Your task to perform on an android device: Open calendar and show me the first week of next month Image 0: 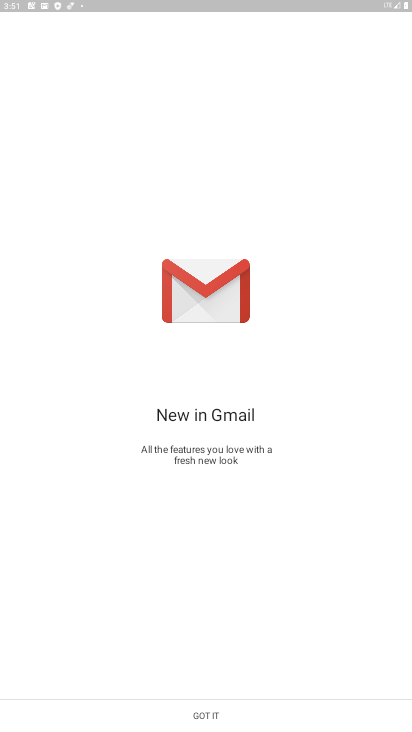
Step 0: press home button
Your task to perform on an android device: Open calendar and show me the first week of next month Image 1: 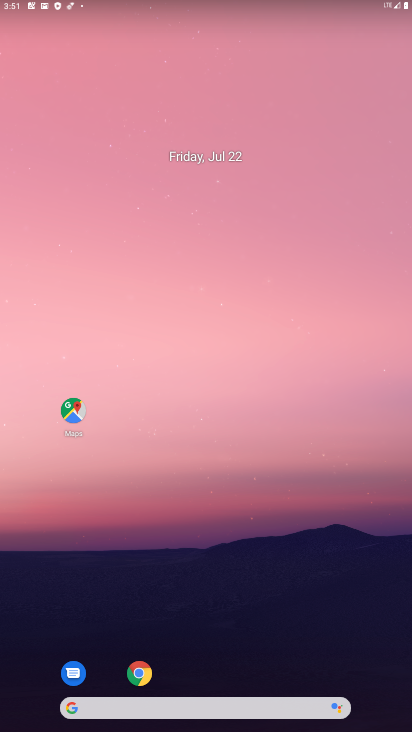
Step 1: drag from (269, 652) to (266, 6)
Your task to perform on an android device: Open calendar and show me the first week of next month Image 2: 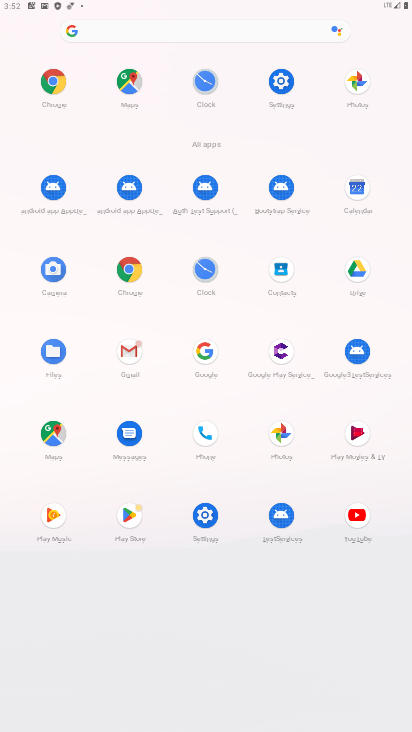
Step 2: click (362, 200)
Your task to perform on an android device: Open calendar and show me the first week of next month Image 3: 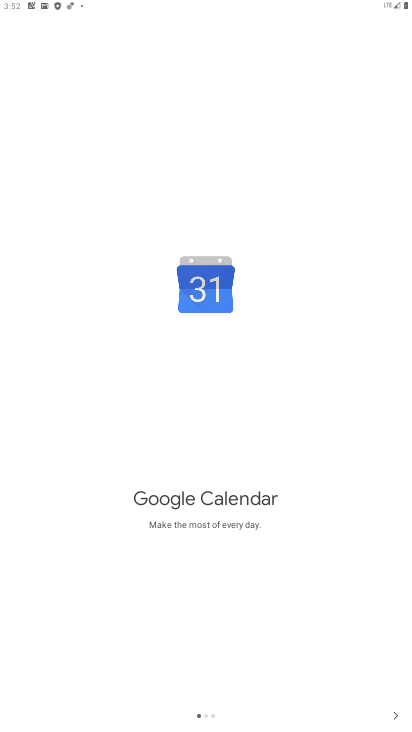
Step 3: click (399, 711)
Your task to perform on an android device: Open calendar and show me the first week of next month Image 4: 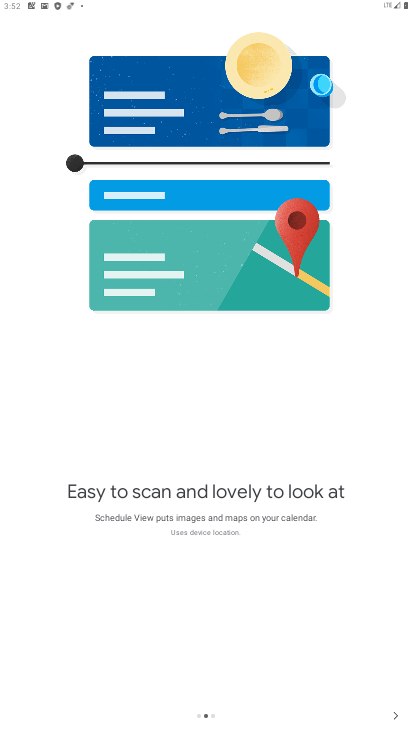
Step 4: click (399, 711)
Your task to perform on an android device: Open calendar and show me the first week of next month Image 5: 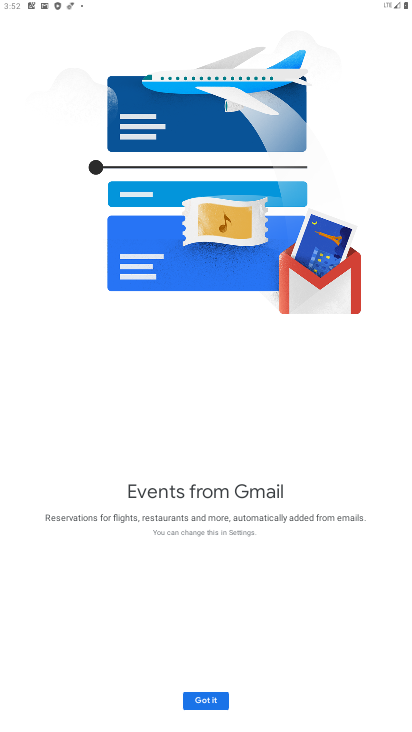
Step 5: click (399, 711)
Your task to perform on an android device: Open calendar and show me the first week of next month Image 6: 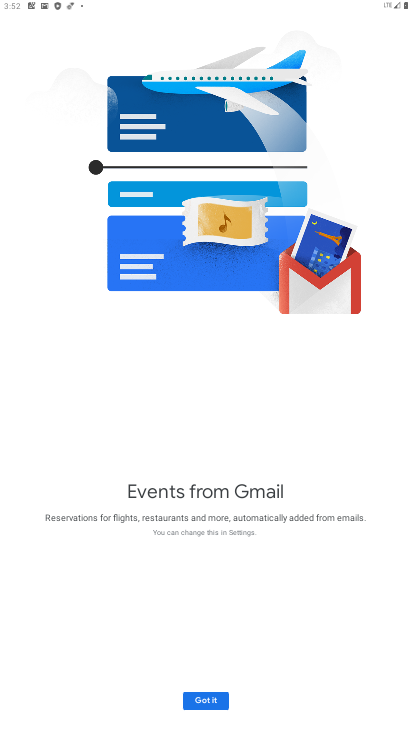
Step 6: click (213, 697)
Your task to perform on an android device: Open calendar and show me the first week of next month Image 7: 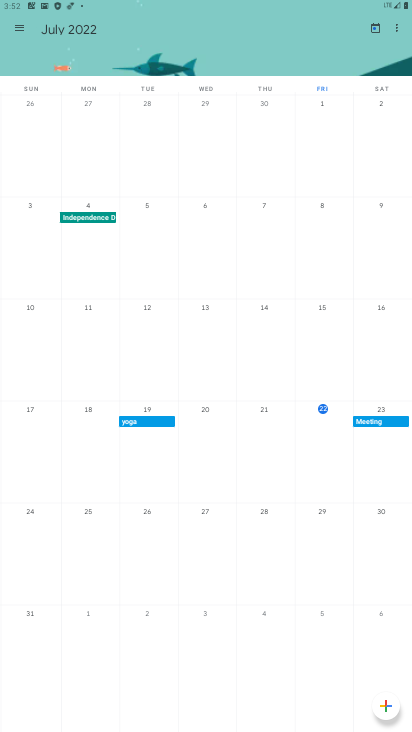
Step 7: click (14, 456)
Your task to perform on an android device: Open calendar and show me the first week of next month Image 8: 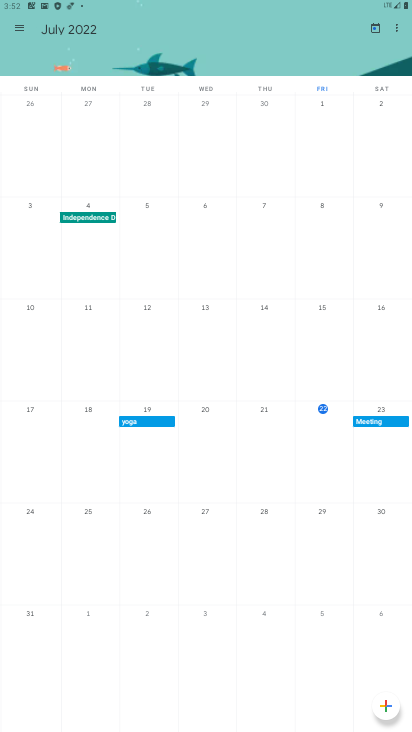
Step 8: drag from (391, 453) to (27, 502)
Your task to perform on an android device: Open calendar and show me the first week of next month Image 9: 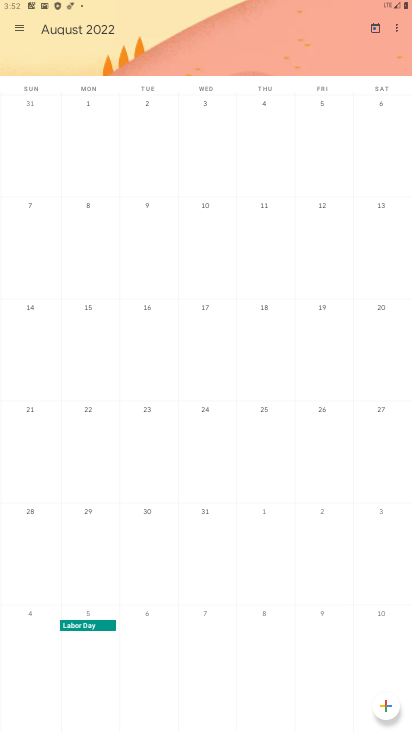
Step 9: click (81, 142)
Your task to perform on an android device: Open calendar and show me the first week of next month Image 10: 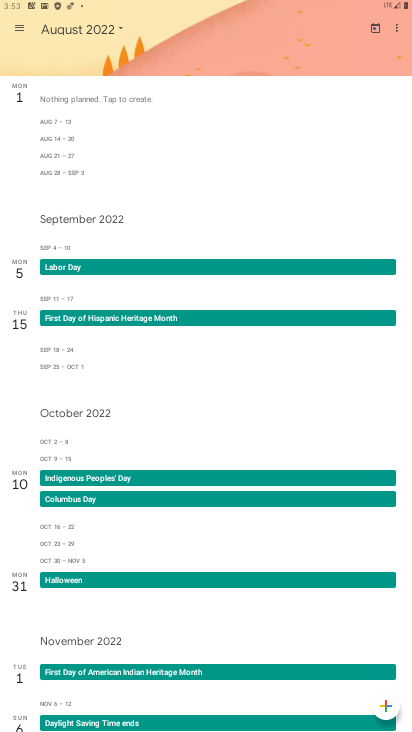
Step 10: task complete